Your task to perform on an android device: turn off wifi Image 0: 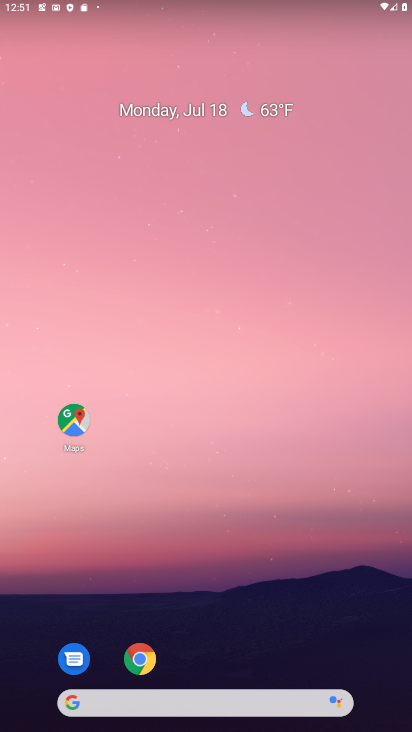
Step 0: drag from (222, 686) to (224, 206)
Your task to perform on an android device: turn off wifi Image 1: 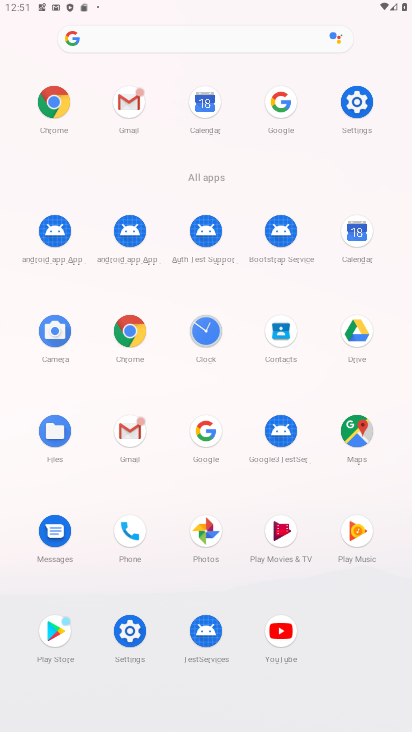
Step 1: click (351, 104)
Your task to perform on an android device: turn off wifi Image 2: 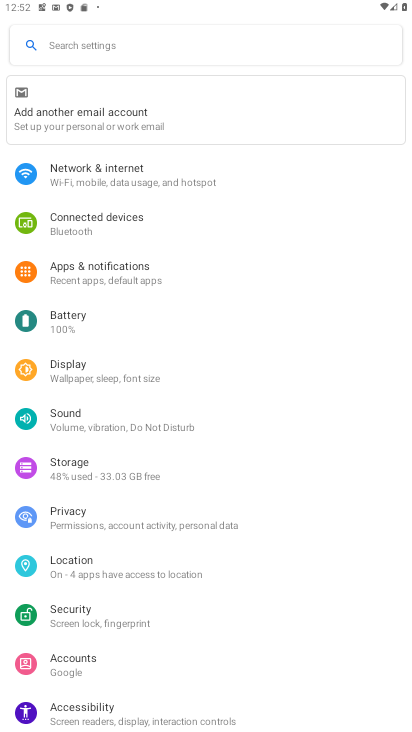
Step 2: click (166, 179)
Your task to perform on an android device: turn off wifi Image 3: 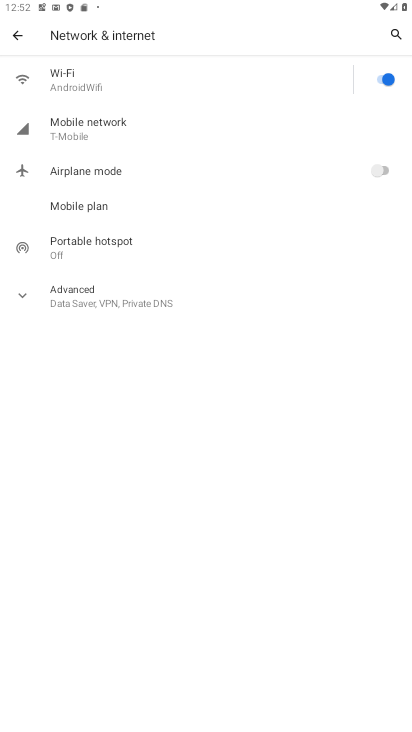
Step 3: click (377, 82)
Your task to perform on an android device: turn off wifi Image 4: 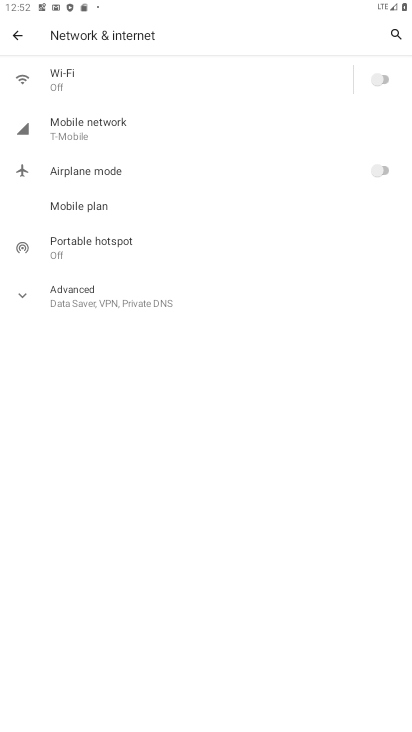
Step 4: task complete